Your task to perform on an android device: toggle javascript in the chrome app Image 0: 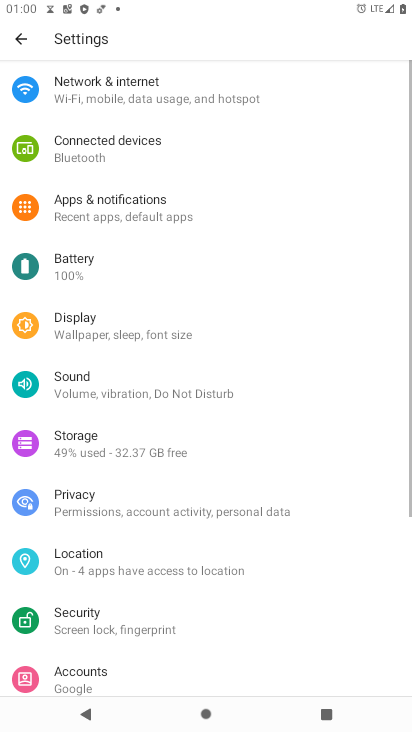
Step 0: press home button
Your task to perform on an android device: toggle javascript in the chrome app Image 1: 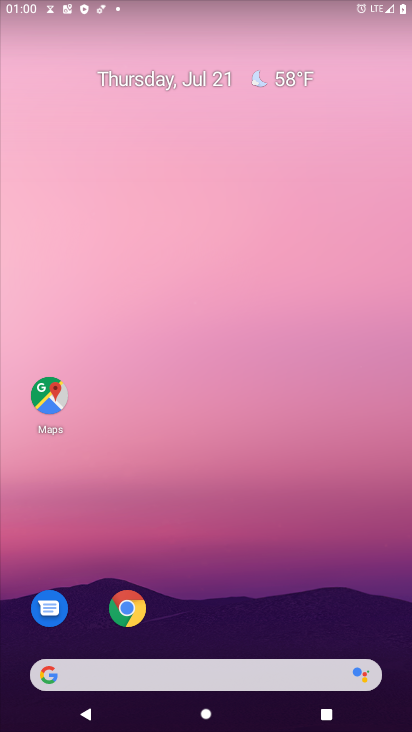
Step 1: click (121, 603)
Your task to perform on an android device: toggle javascript in the chrome app Image 2: 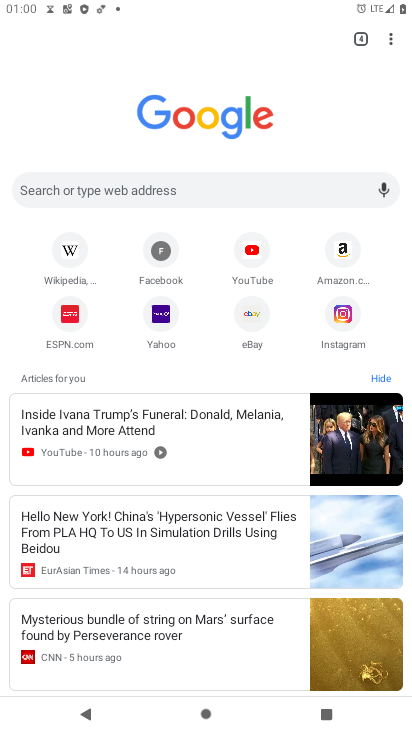
Step 2: click (386, 39)
Your task to perform on an android device: toggle javascript in the chrome app Image 3: 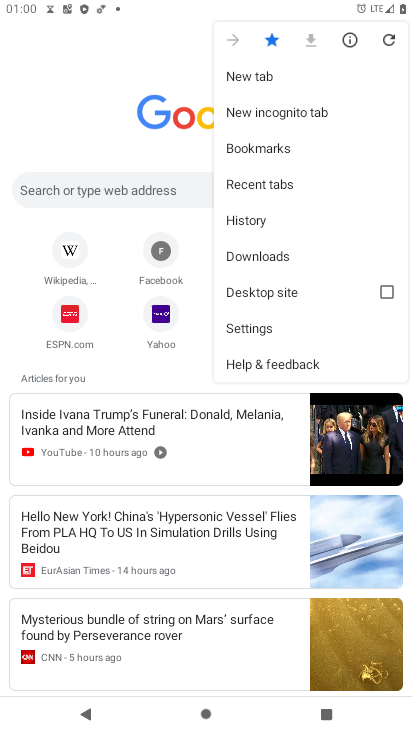
Step 3: click (282, 322)
Your task to perform on an android device: toggle javascript in the chrome app Image 4: 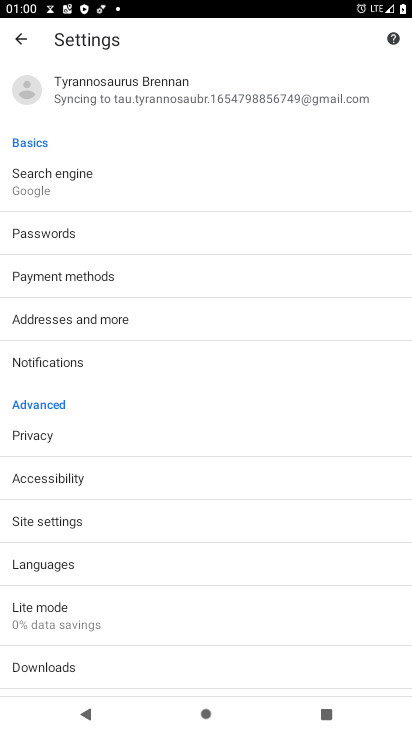
Step 4: click (90, 522)
Your task to perform on an android device: toggle javascript in the chrome app Image 5: 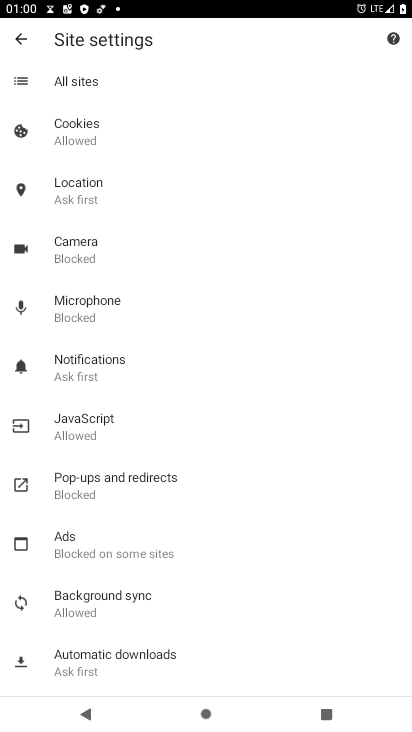
Step 5: click (132, 421)
Your task to perform on an android device: toggle javascript in the chrome app Image 6: 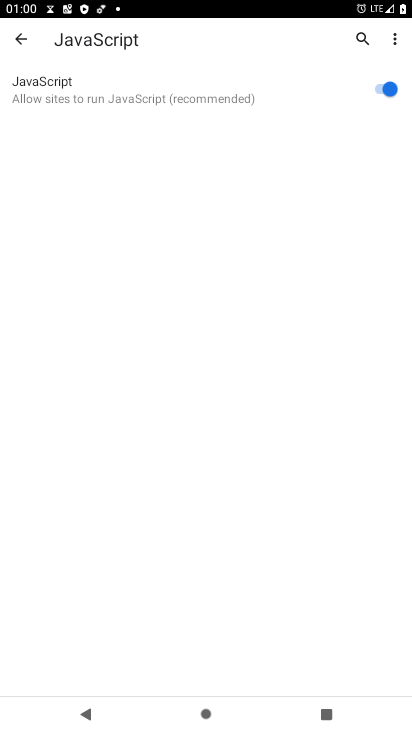
Step 6: click (375, 90)
Your task to perform on an android device: toggle javascript in the chrome app Image 7: 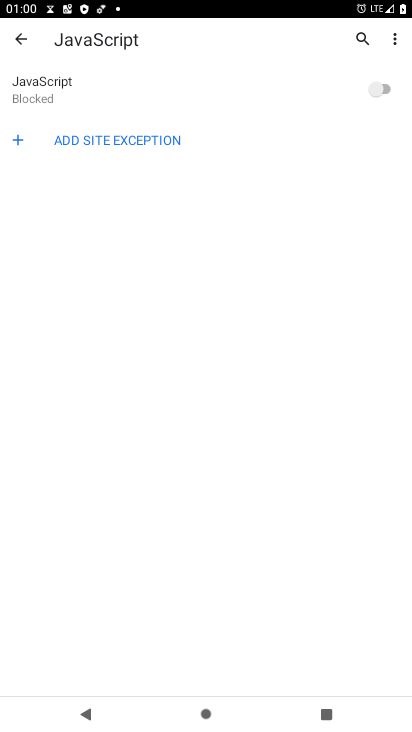
Step 7: task complete